Your task to perform on an android device: Do I have any events today? Image 0: 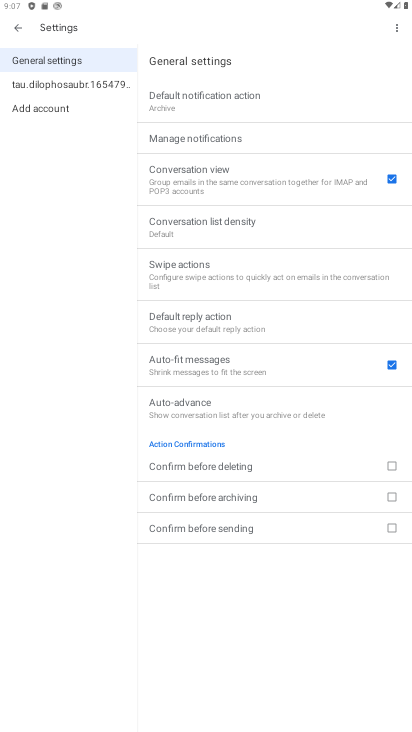
Step 0: press home button
Your task to perform on an android device: Do I have any events today? Image 1: 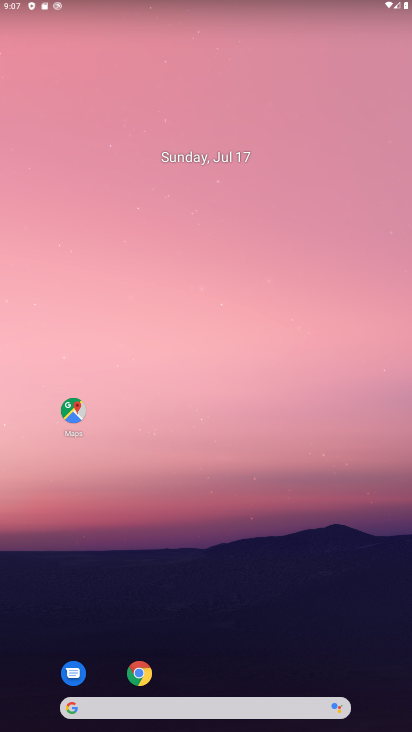
Step 1: drag from (210, 643) to (194, 0)
Your task to perform on an android device: Do I have any events today? Image 2: 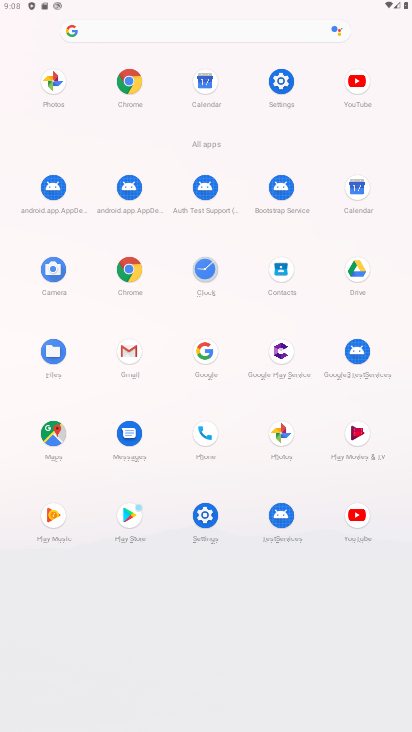
Step 2: click (356, 195)
Your task to perform on an android device: Do I have any events today? Image 3: 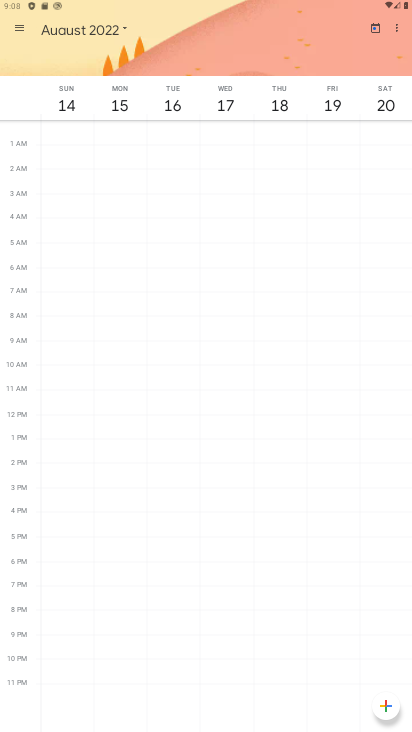
Step 3: drag from (356, 195) to (112, 28)
Your task to perform on an android device: Do I have any events today? Image 4: 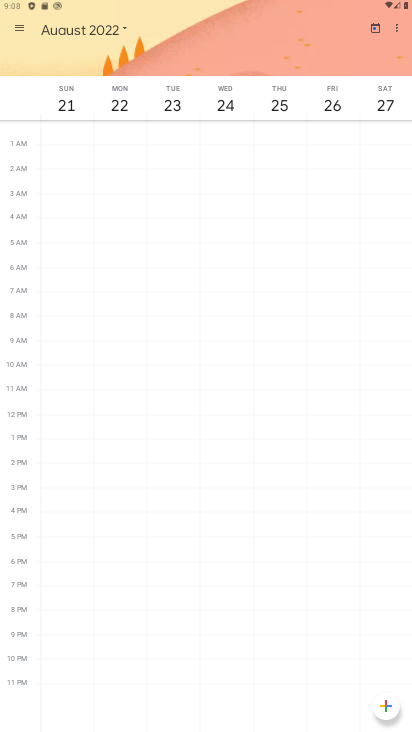
Step 4: click (24, 30)
Your task to perform on an android device: Do I have any events today? Image 5: 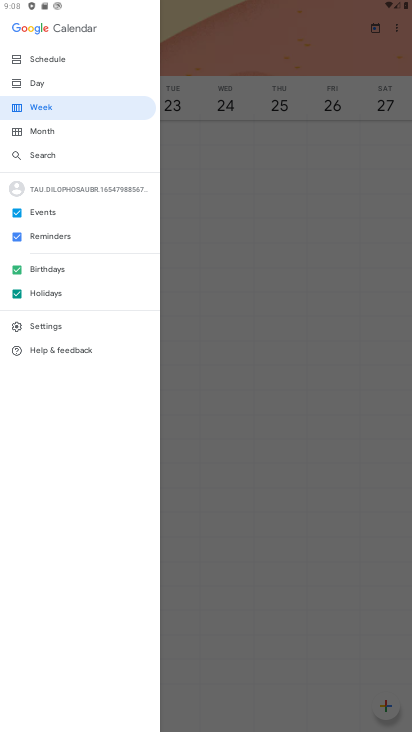
Step 5: click (52, 82)
Your task to perform on an android device: Do I have any events today? Image 6: 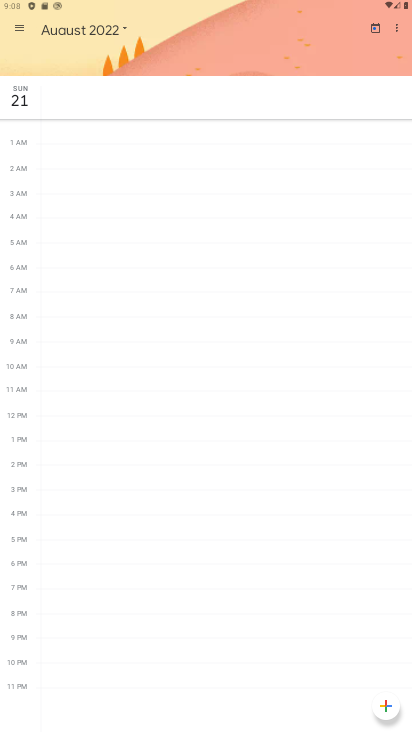
Step 6: click (104, 26)
Your task to perform on an android device: Do I have any events today? Image 7: 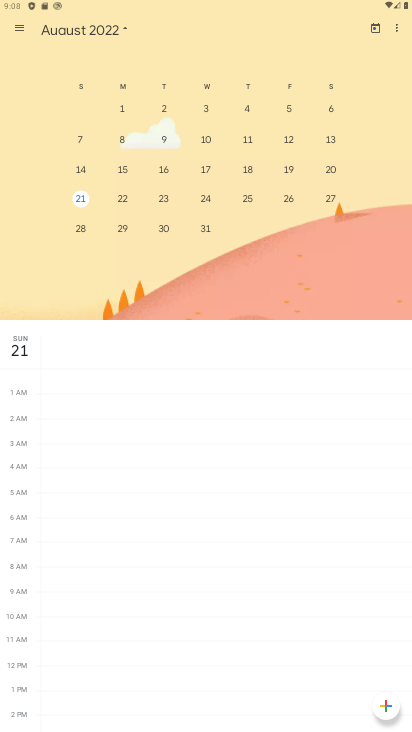
Step 7: drag from (130, 170) to (409, 148)
Your task to perform on an android device: Do I have any events today? Image 8: 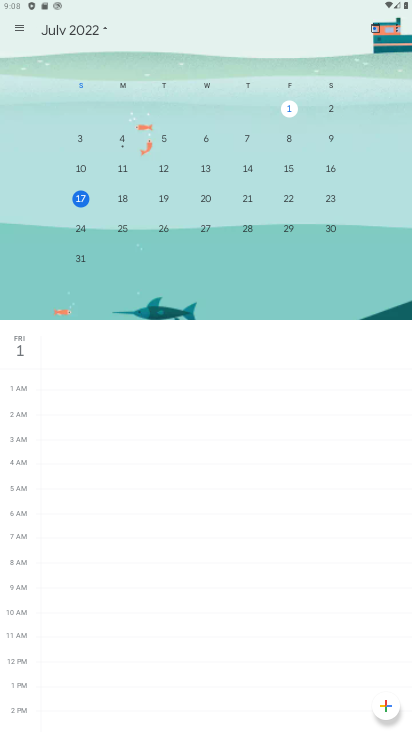
Step 8: click (84, 206)
Your task to perform on an android device: Do I have any events today? Image 9: 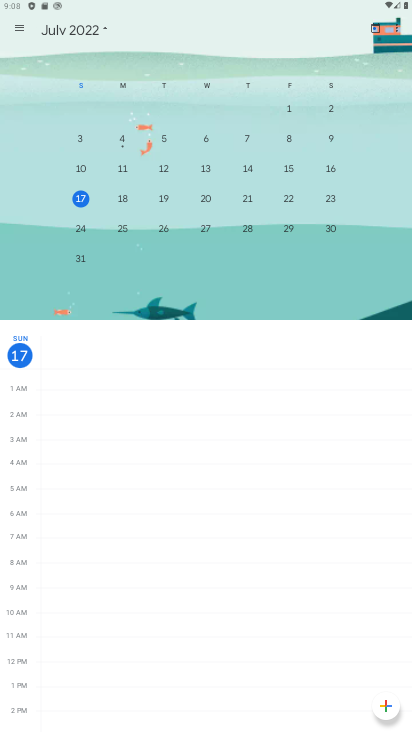
Step 9: click (80, 203)
Your task to perform on an android device: Do I have any events today? Image 10: 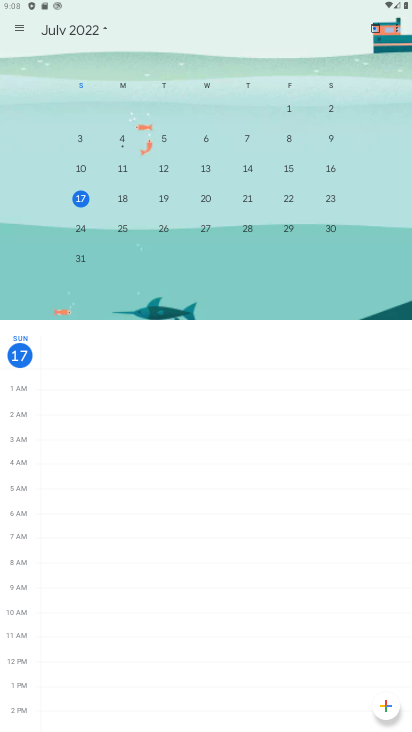
Step 10: task complete